Your task to perform on an android device: Open location settings Image 0: 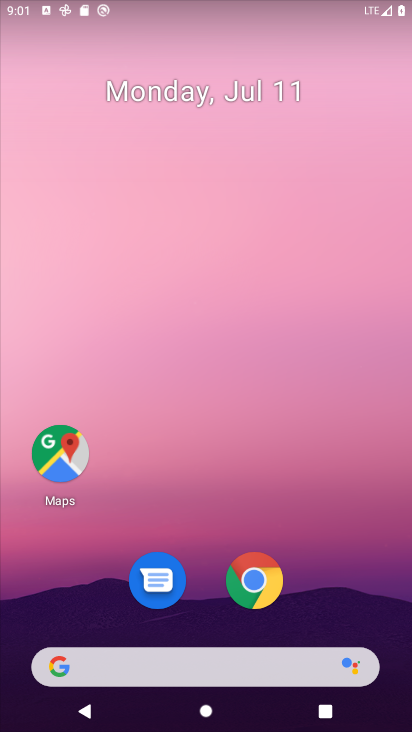
Step 0: drag from (302, 568) to (309, 27)
Your task to perform on an android device: Open location settings Image 1: 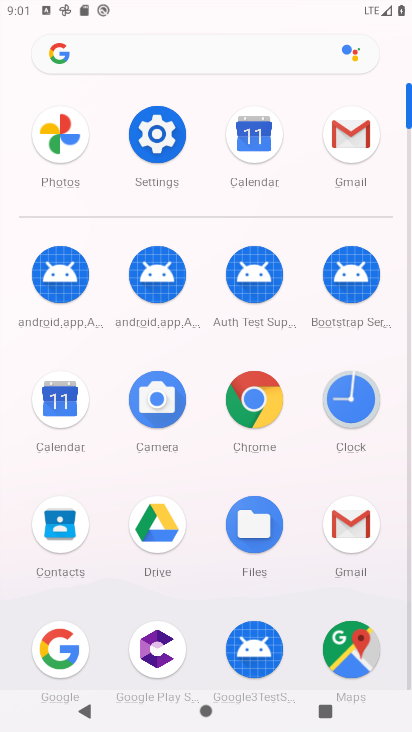
Step 1: click (159, 134)
Your task to perform on an android device: Open location settings Image 2: 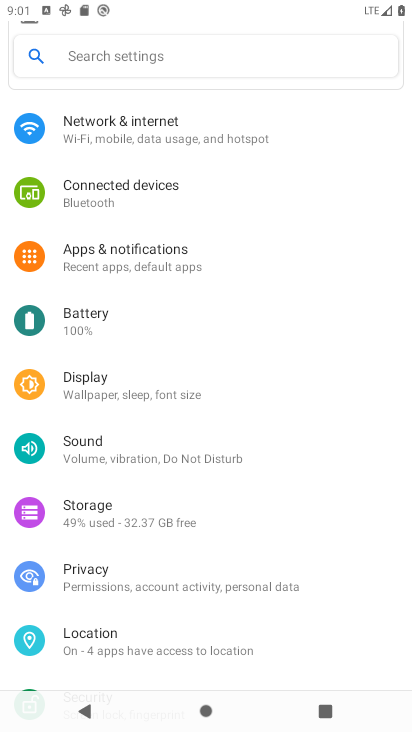
Step 2: click (154, 650)
Your task to perform on an android device: Open location settings Image 3: 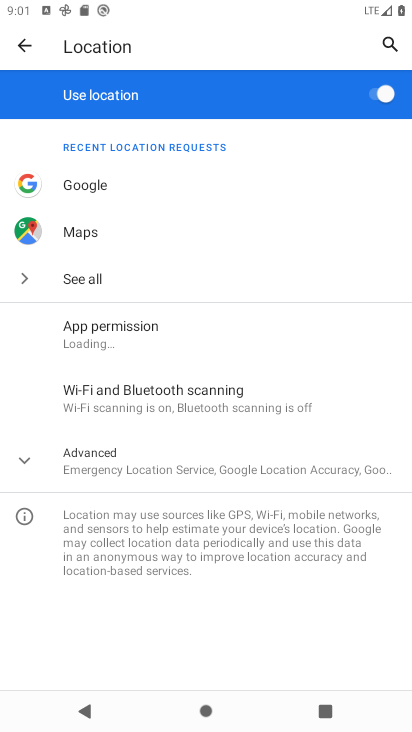
Step 3: task complete